Your task to perform on an android device: search for starred emails in the gmail app Image 0: 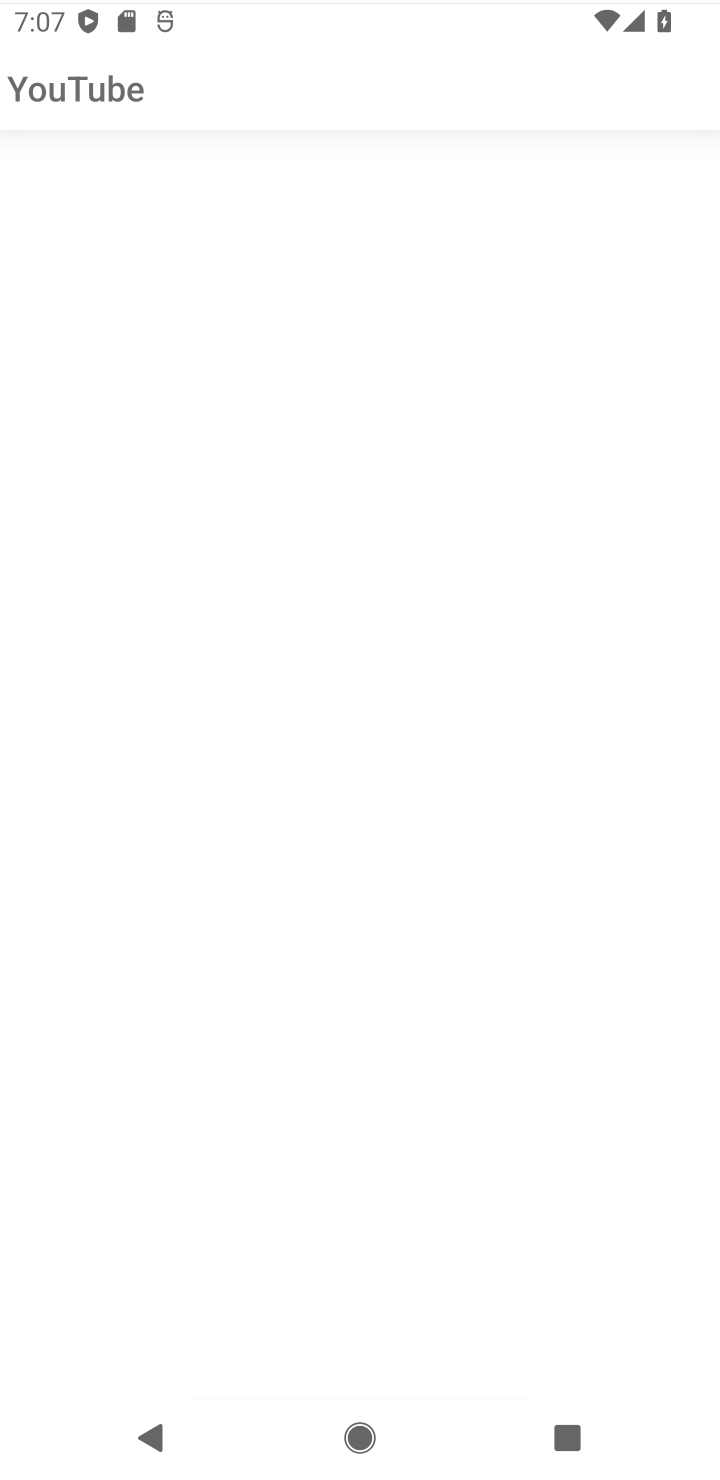
Step 0: press home button
Your task to perform on an android device: search for starred emails in the gmail app Image 1: 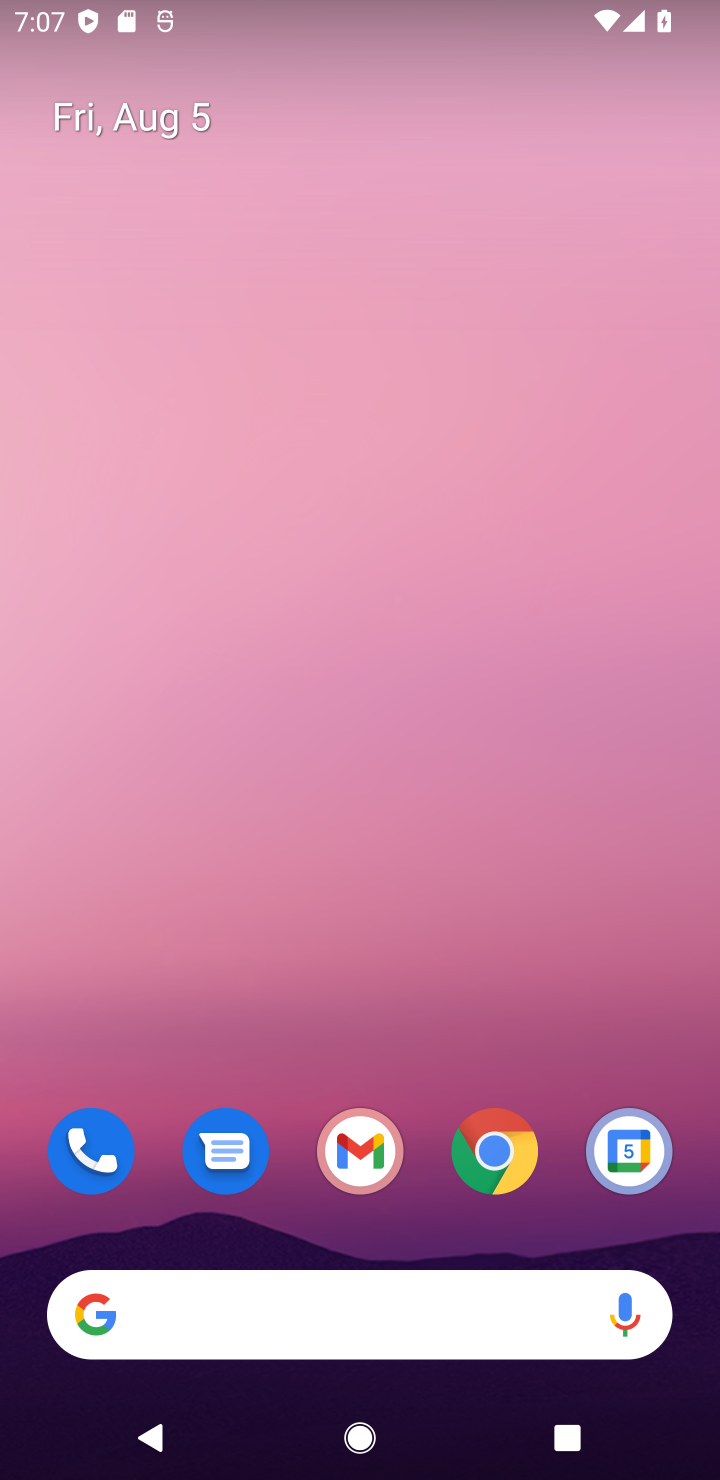
Step 1: click (372, 1145)
Your task to perform on an android device: search for starred emails in the gmail app Image 2: 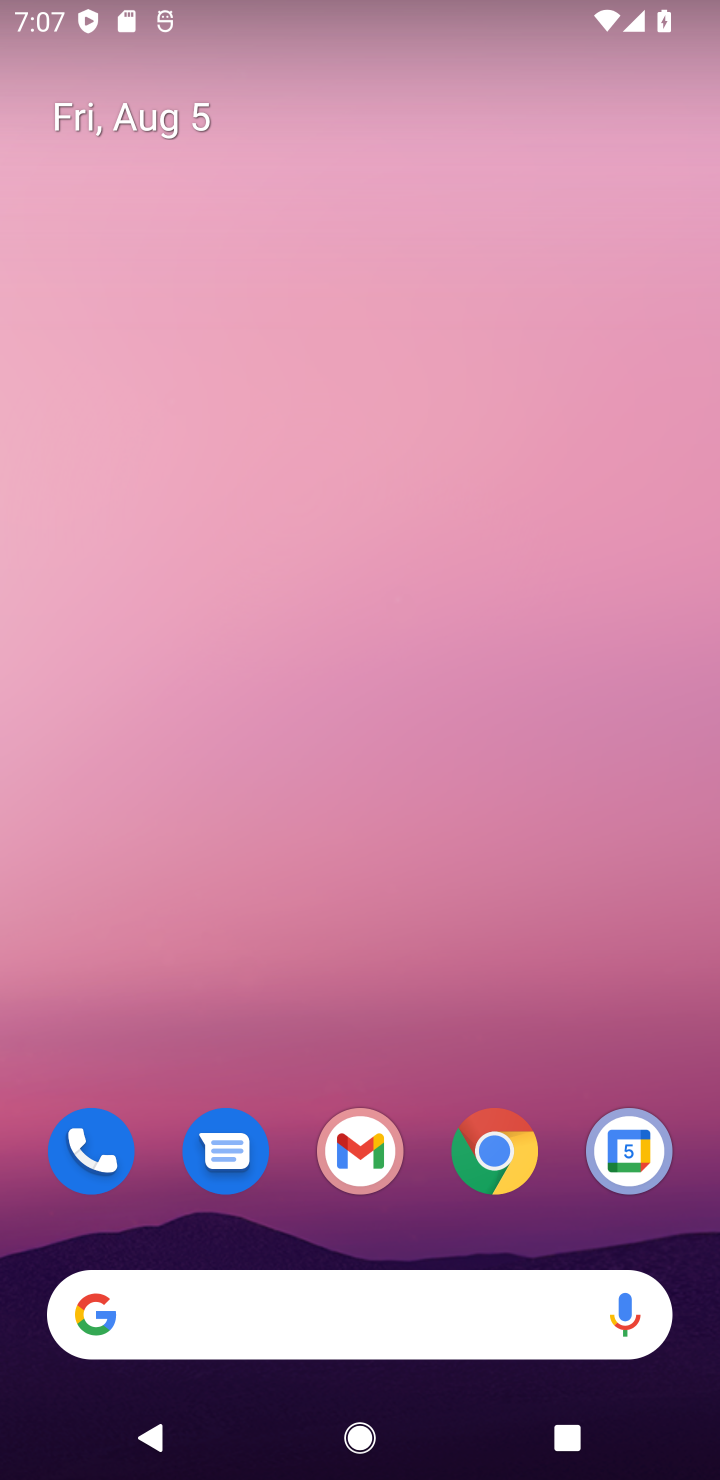
Step 2: click (355, 1167)
Your task to perform on an android device: search for starred emails in the gmail app Image 3: 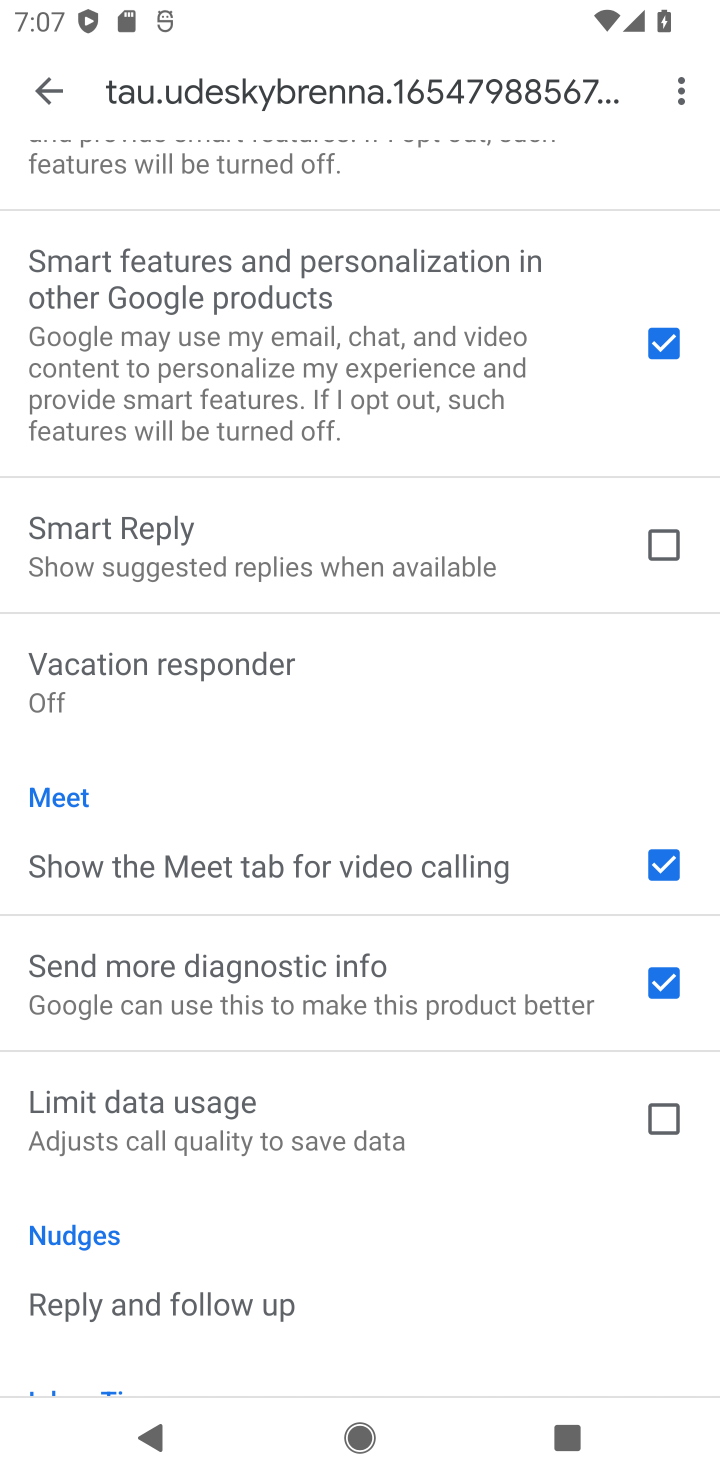
Step 3: click (35, 101)
Your task to perform on an android device: search for starred emails in the gmail app Image 4: 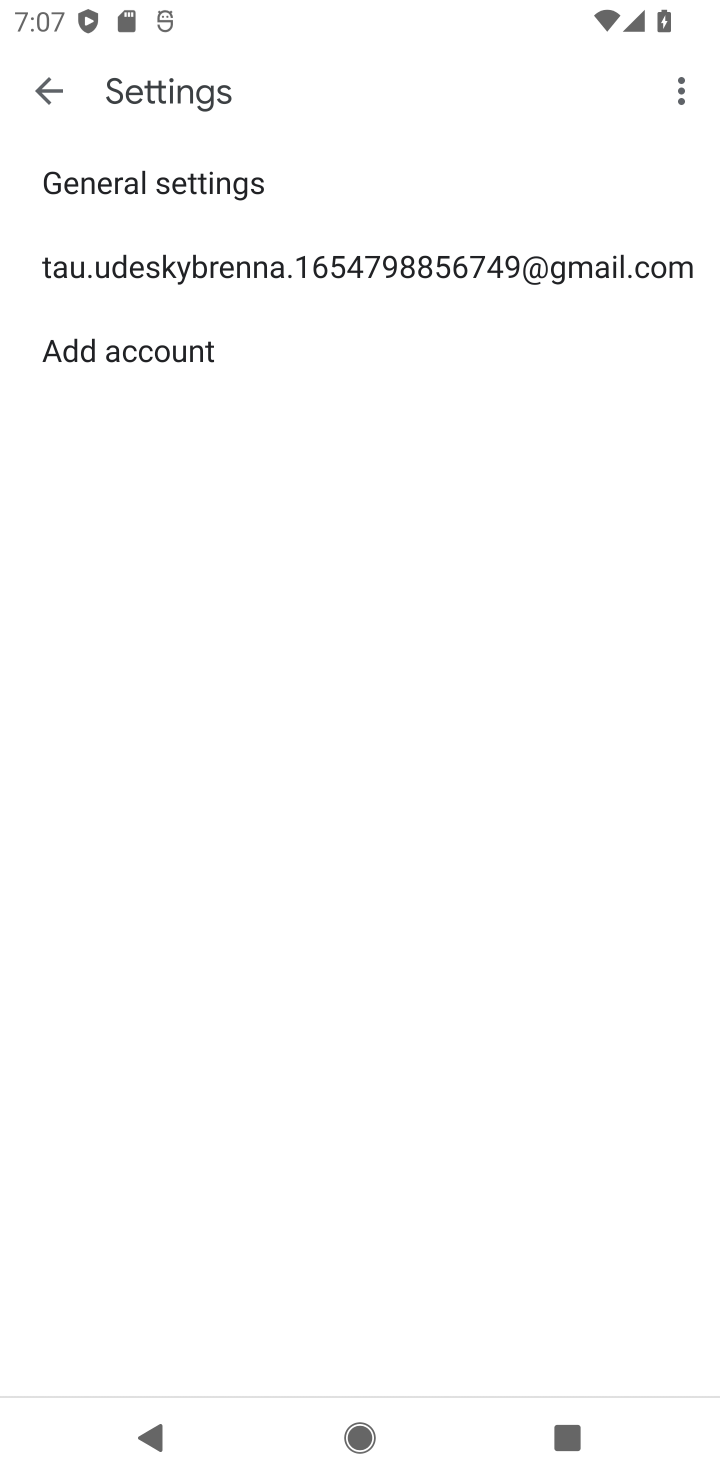
Step 4: click (39, 100)
Your task to perform on an android device: search for starred emails in the gmail app Image 5: 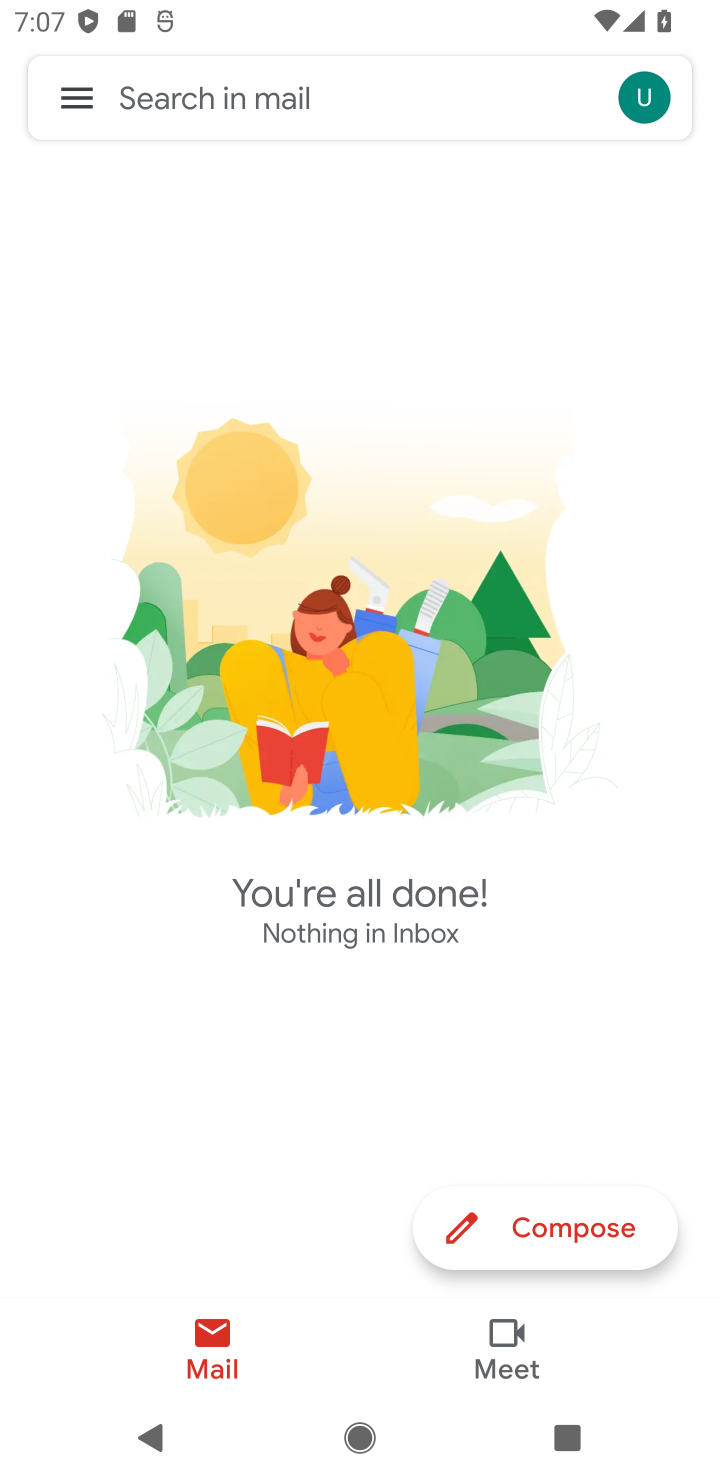
Step 5: drag from (65, 101) to (100, 748)
Your task to perform on an android device: search for starred emails in the gmail app Image 6: 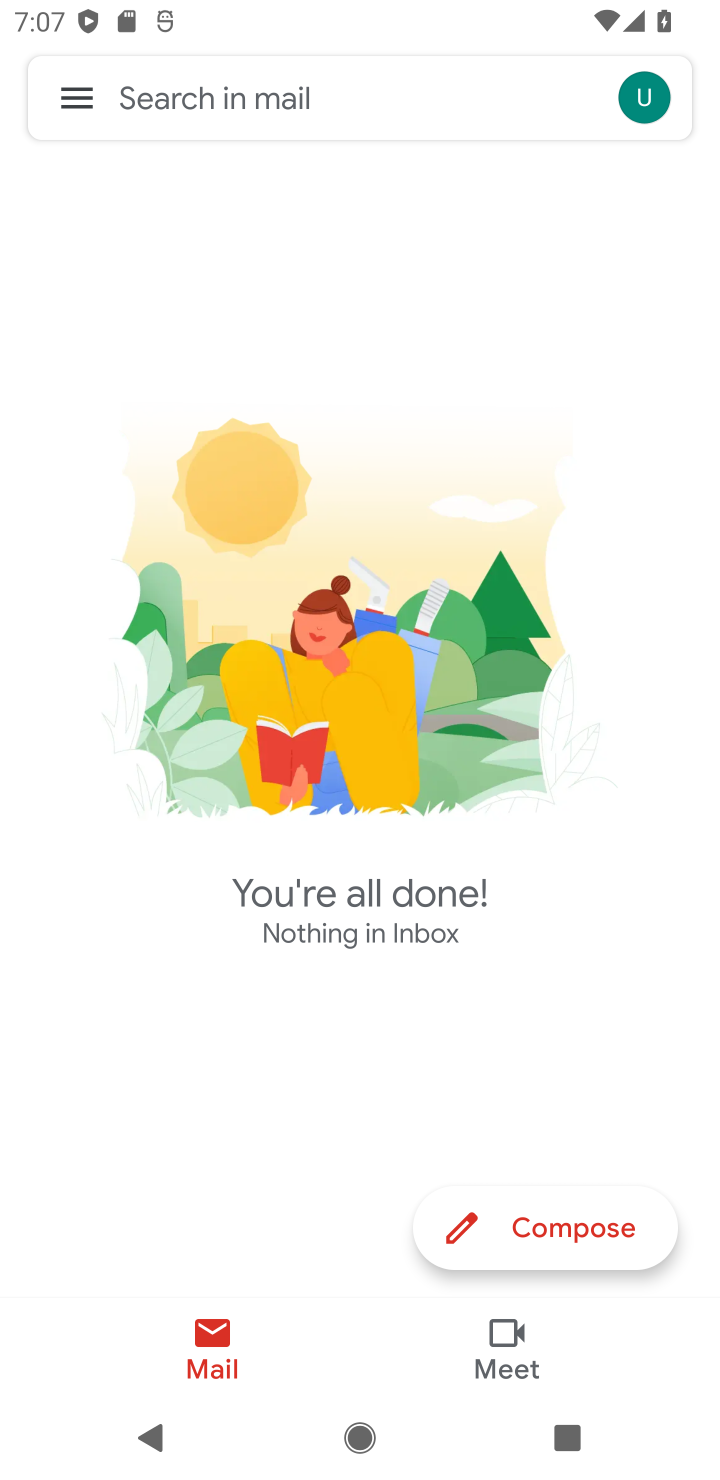
Step 6: click (77, 101)
Your task to perform on an android device: search for starred emails in the gmail app Image 7: 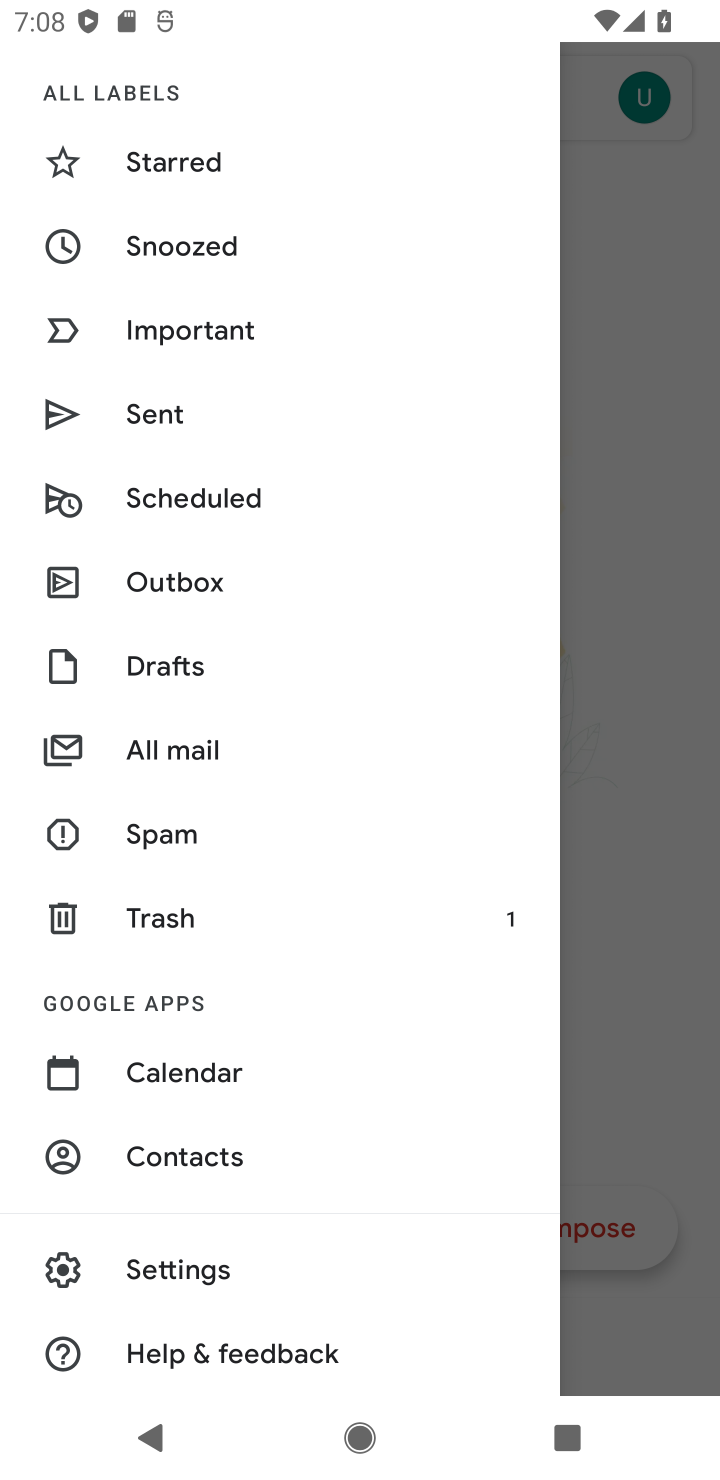
Step 7: click (166, 153)
Your task to perform on an android device: search for starred emails in the gmail app Image 8: 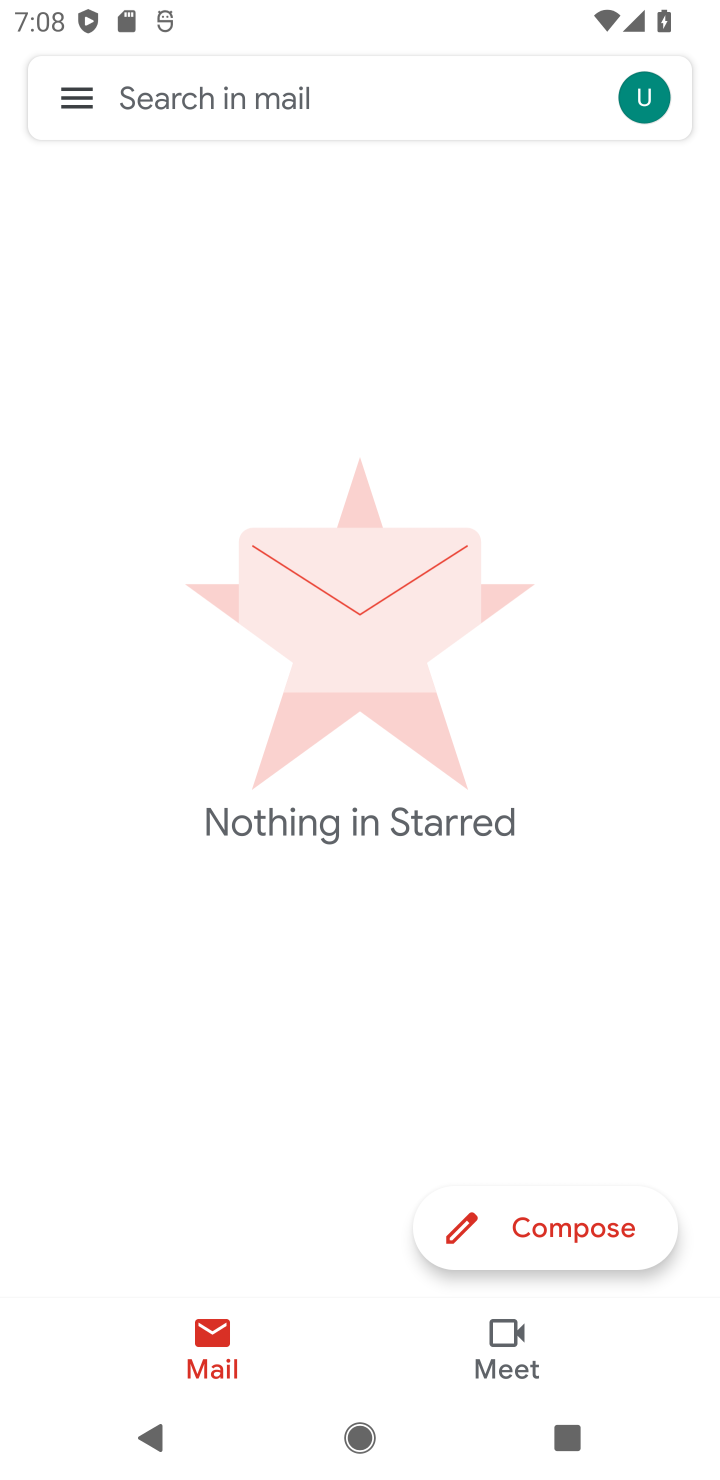
Step 8: task complete